Your task to perform on an android device: turn on sleep mode Image 0: 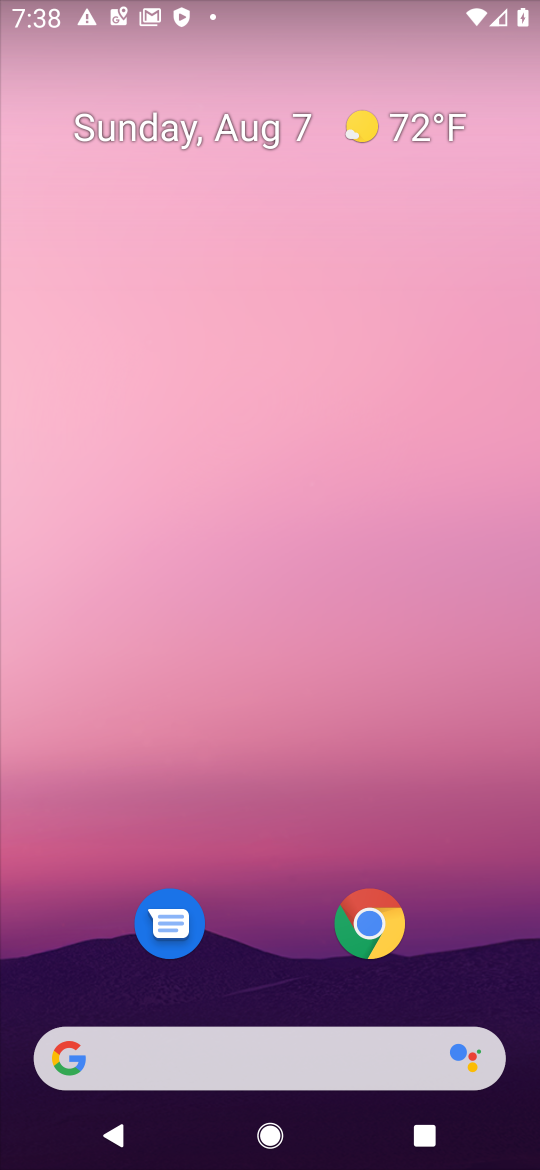
Step 0: drag from (477, 974) to (320, 21)
Your task to perform on an android device: turn on sleep mode Image 1: 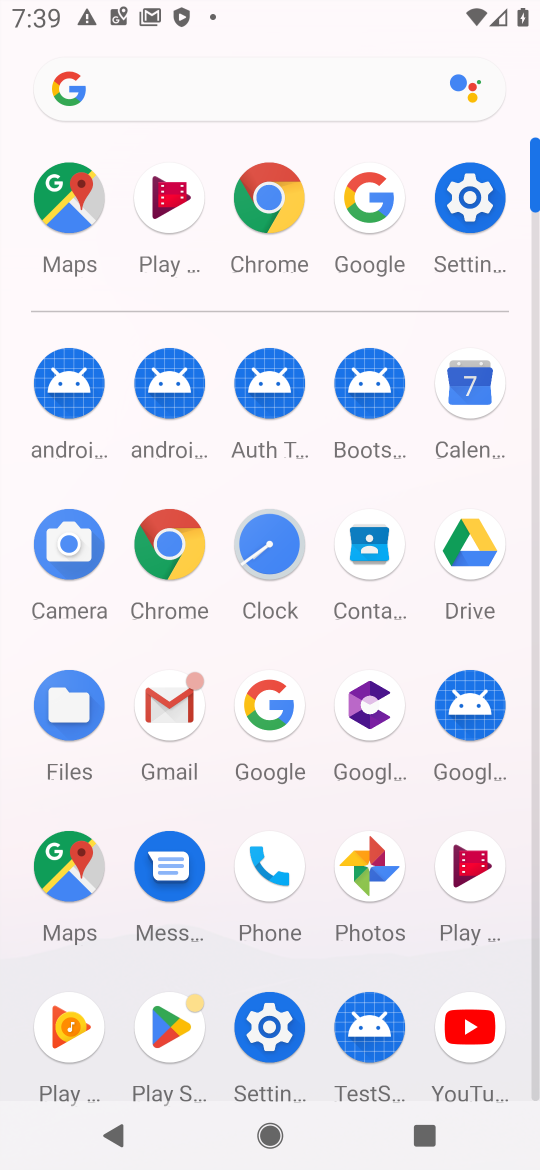
Step 1: click (266, 1029)
Your task to perform on an android device: turn on sleep mode Image 2: 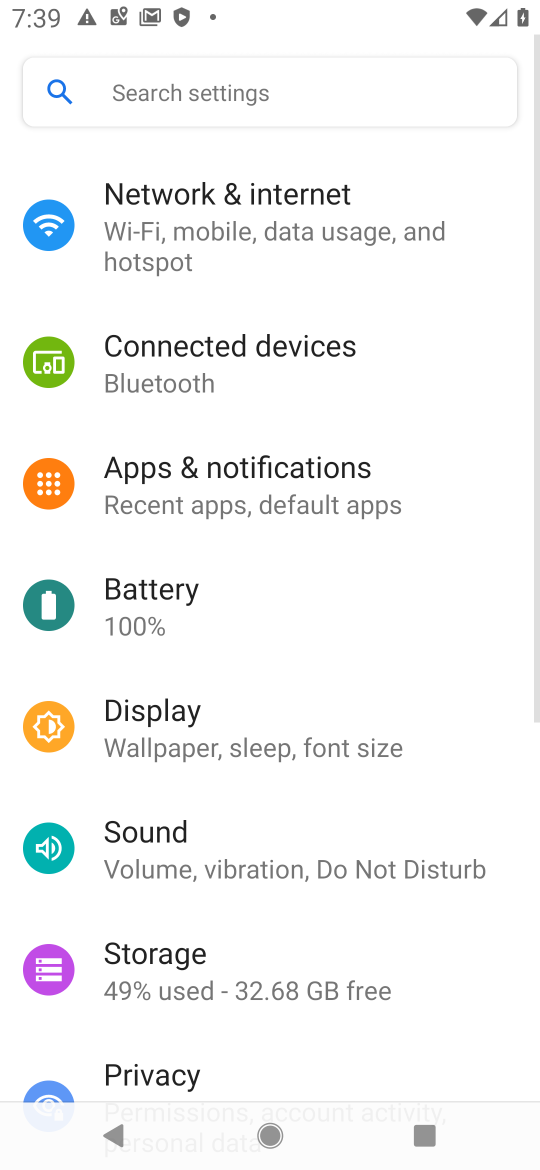
Step 2: task complete